Your task to perform on an android device: move an email to a new category in the gmail app Image 0: 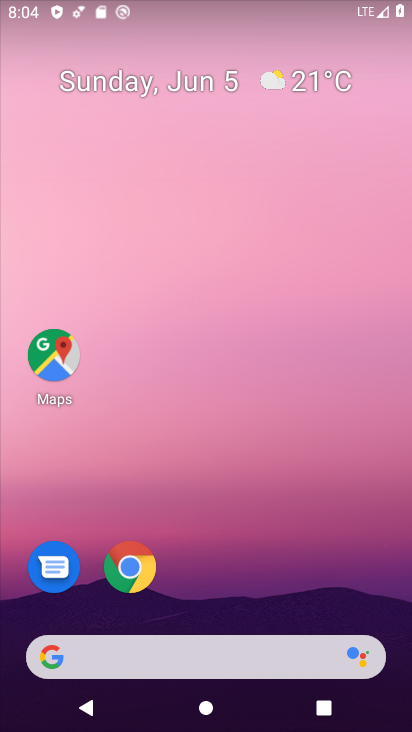
Step 0: drag from (212, 643) to (300, 291)
Your task to perform on an android device: move an email to a new category in the gmail app Image 1: 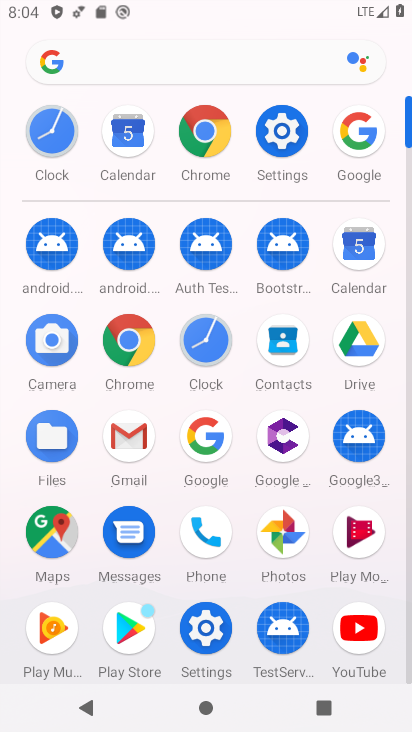
Step 1: click (119, 443)
Your task to perform on an android device: move an email to a new category in the gmail app Image 2: 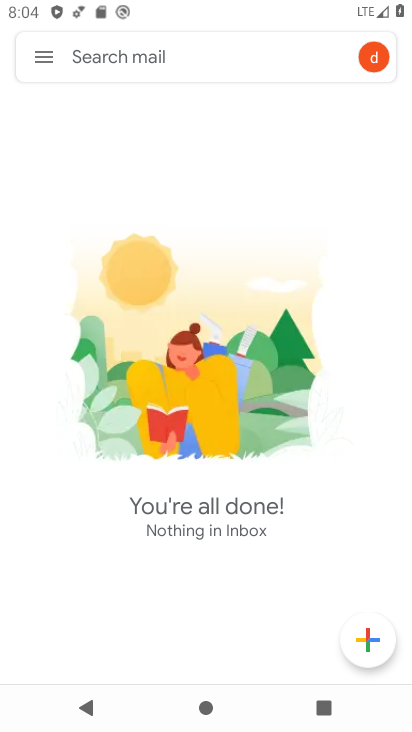
Step 2: task complete